Your task to perform on an android device: open wifi settings Image 0: 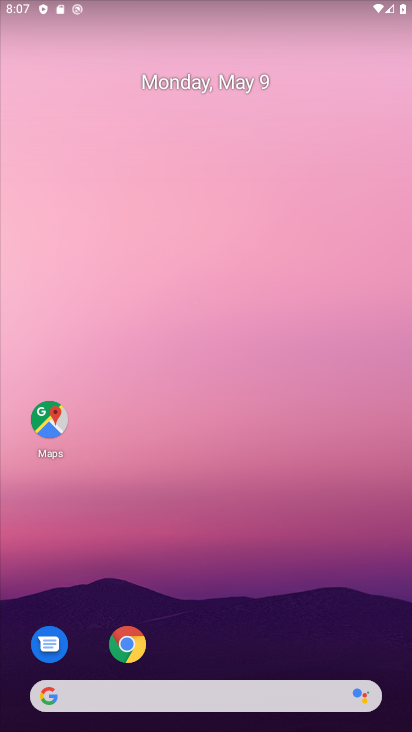
Step 0: drag from (277, 579) to (306, 150)
Your task to perform on an android device: open wifi settings Image 1: 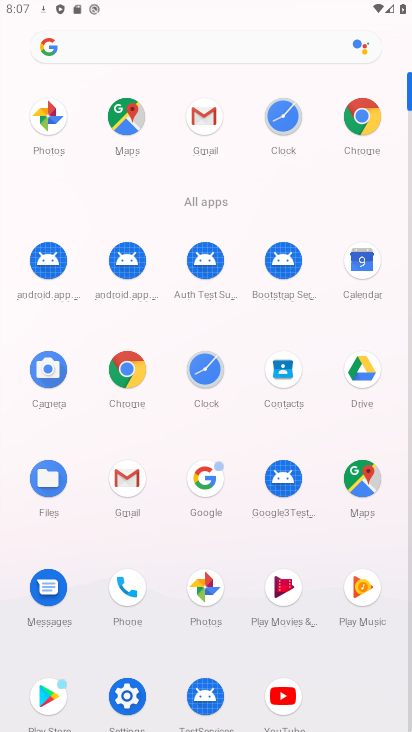
Step 1: click (132, 680)
Your task to perform on an android device: open wifi settings Image 2: 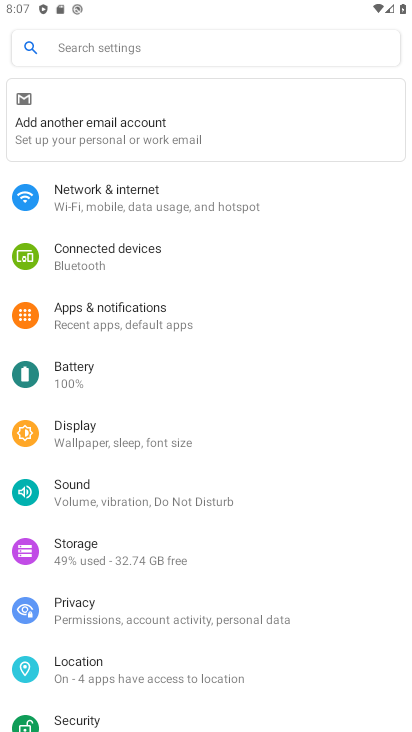
Step 2: click (141, 171)
Your task to perform on an android device: open wifi settings Image 3: 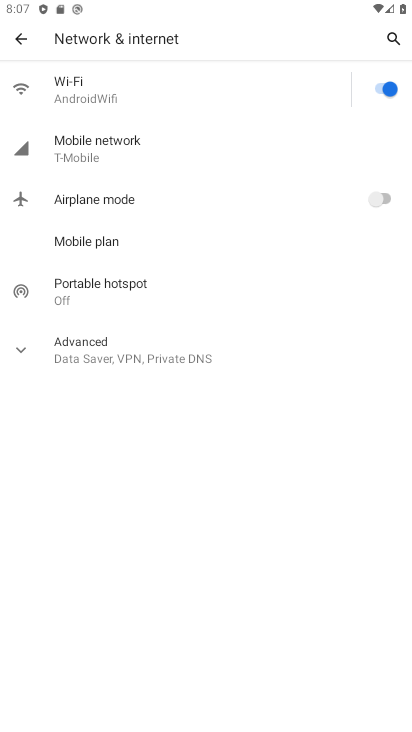
Step 3: click (106, 107)
Your task to perform on an android device: open wifi settings Image 4: 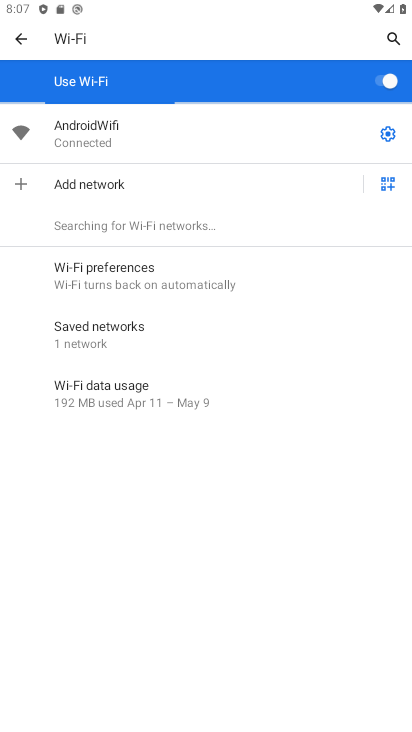
Step 4: task complete